Your task to perform on an android device: Open wifi settings Image 0: 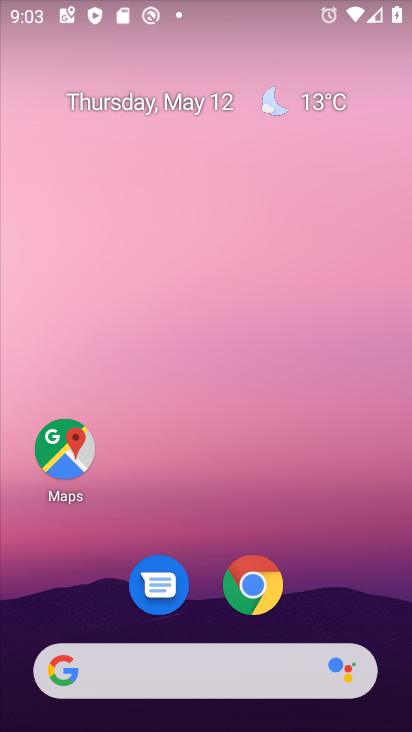
Step 0: drag from (199, 484) to (214, 30)
Your task to perform on an android device: Open wifi settings Image 1: 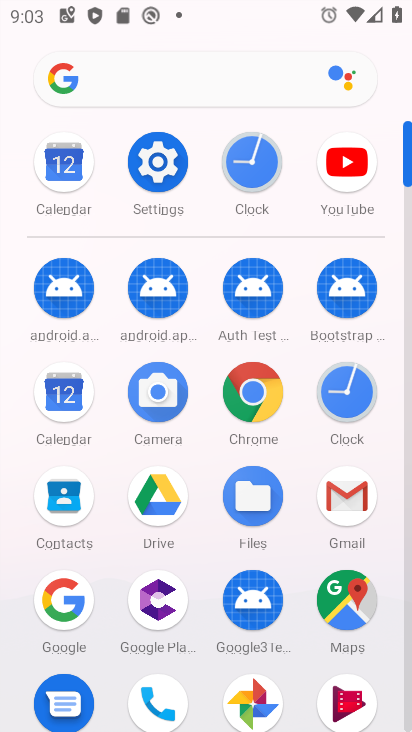
Step 1: click (156, 175)
Your task to perform on an android device: Open wifi settings Image 2: 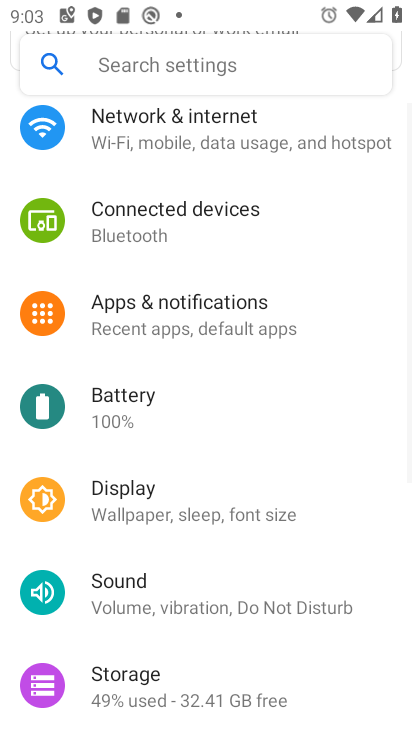
Step 2: click (177, 126)
Your task to perform on an android device: Open wifi settings Image 3: 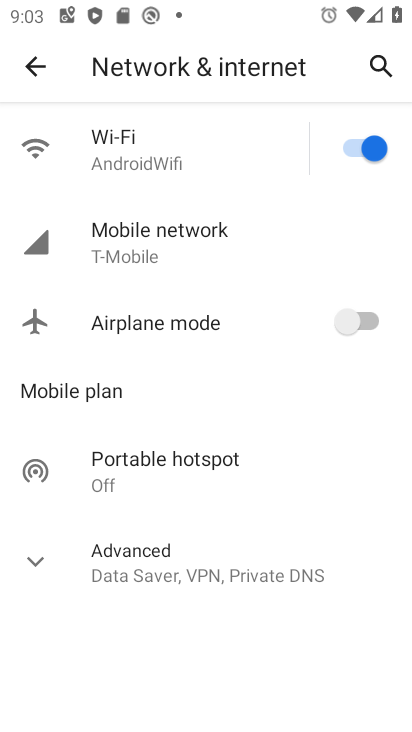
Step 3: click (178, 151)
Your task to perform on an android device: Open wifi settings Image 4: 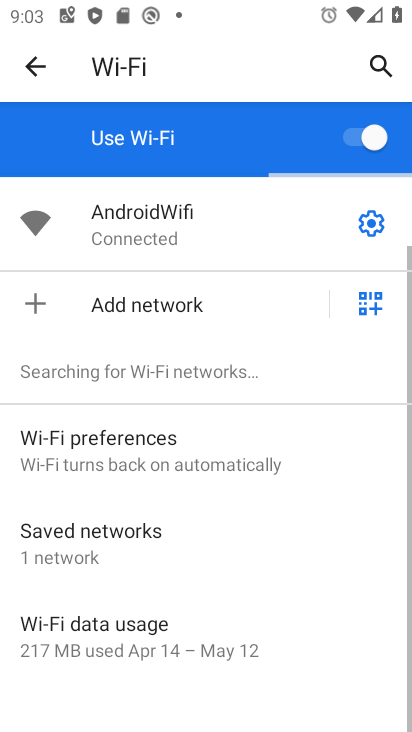
Step 4: task complete